Your task to perform on an android device: Search for Italian restaurants on Maps Image 0: 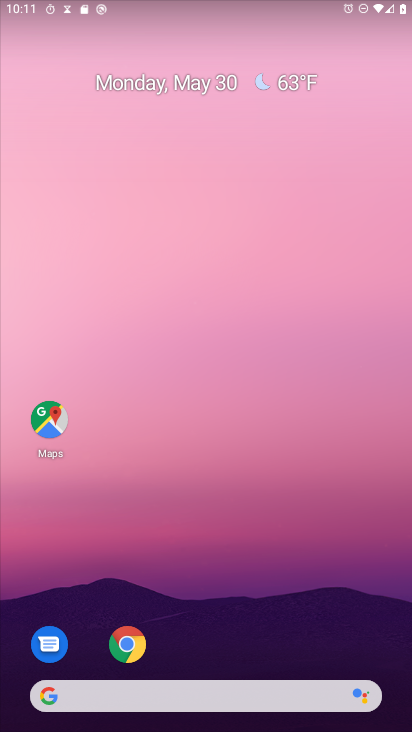
Step 0: drag from (215, 665) to (236, 66)
Your task to perform on an android device: Search for Italian restaurants on Maps Image 1: 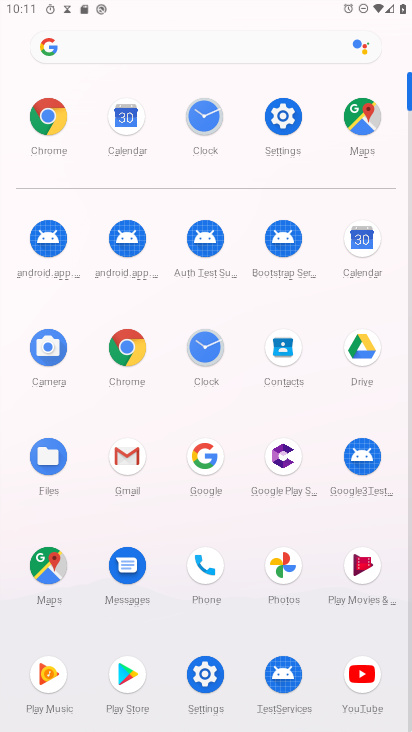
Step 1: click (47, 572)
Your task to perform on an android device: Search for Italian restaurants on Maps Image 2: 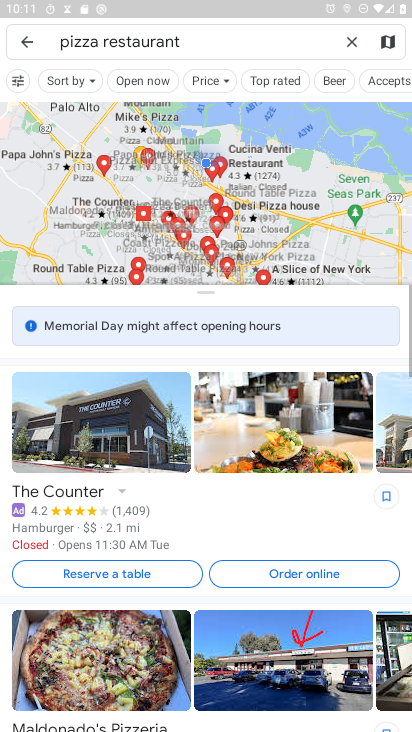
Step 2: click (277, 36)
Your task to perform on an android device: Search for Italian restaurants on Maps Image 3: 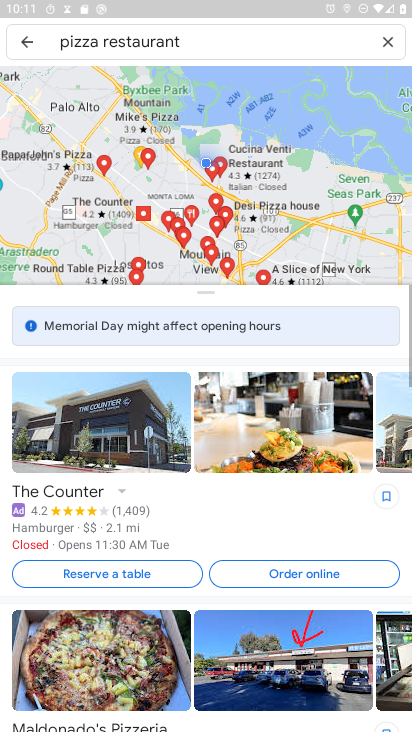
Step 3: click (353, 39)
Your task to perform on an android device: Search for Italian restaurants on Maps Image 4: 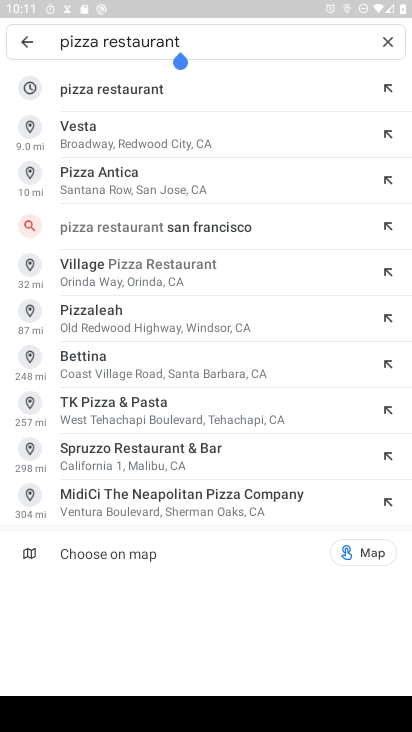
Step 4: click (384, 41)
Your task to perform on an android device: Search for Italian restaurants on Maps Image 5: 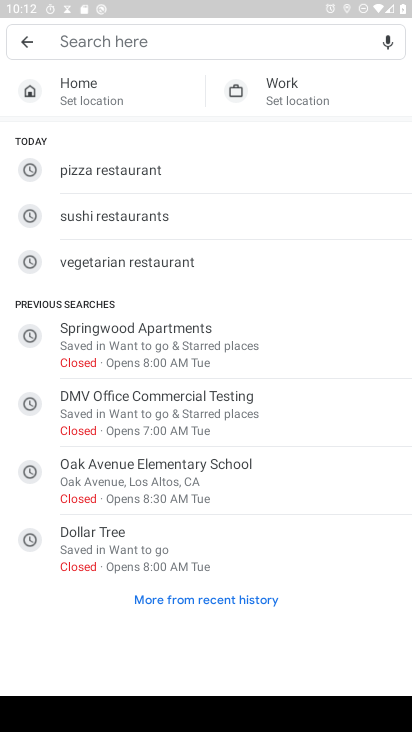
Step 5: type "italian restaurent"
Your task to perform on an android device: Search for Italian restaurants on Maps Image 6: 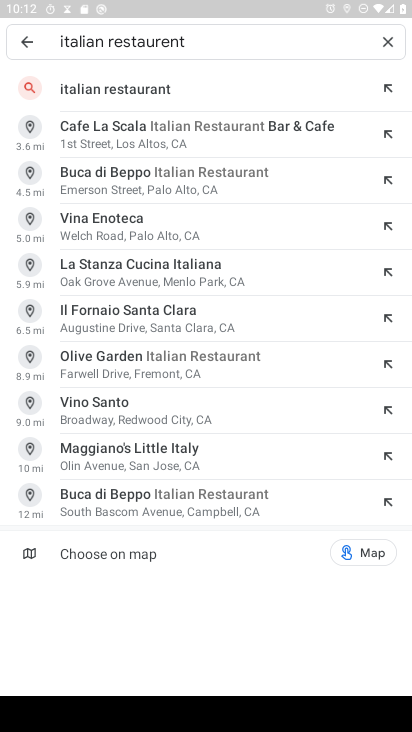
Step 6: click (150, 97)
Your task to perform on an android device: Search for Italian restaurants on Maps Image 7: 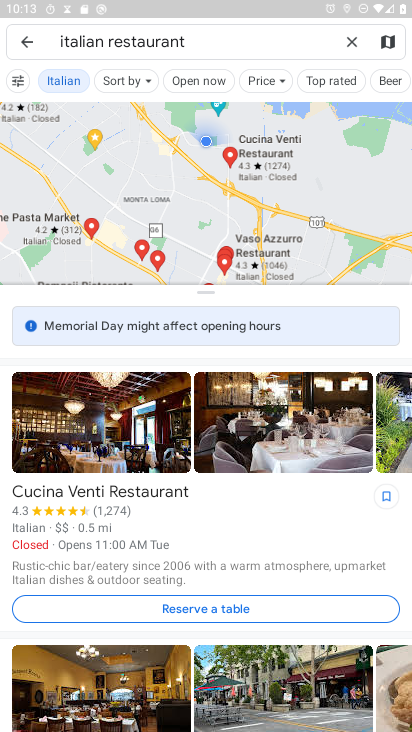
Step 7: task complete